Your task to perform on an android device: Check the weather Image 0: 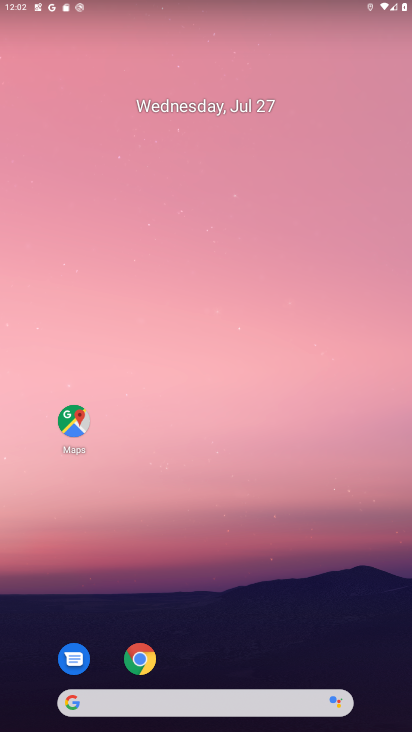
Step 0: drag from (228, 690) to (133, 16)
Your task to perform on an android device: Check the weather Image 1: 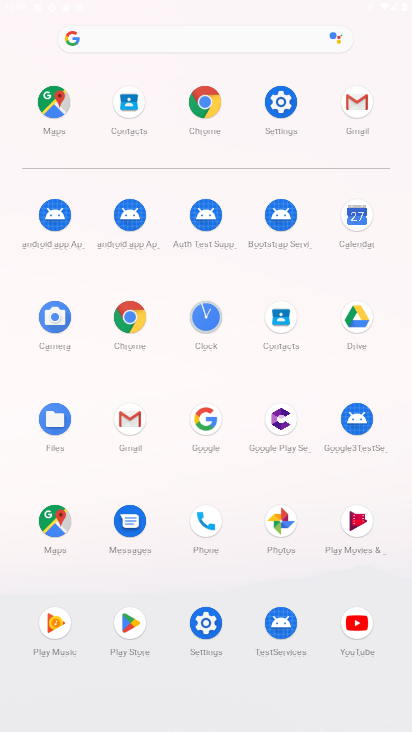
Step 1: click (128, 314)
Your task to perform on an android device: Check the weather Image 2: 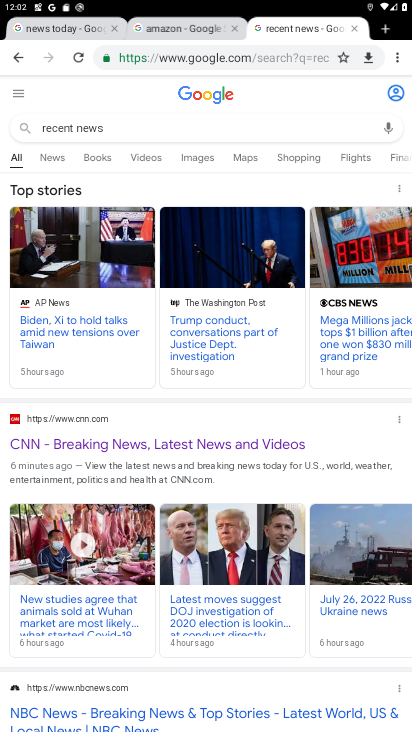
Step 2: click (183, 47)
Your task to perform on an android device: Check the weather Image 3: 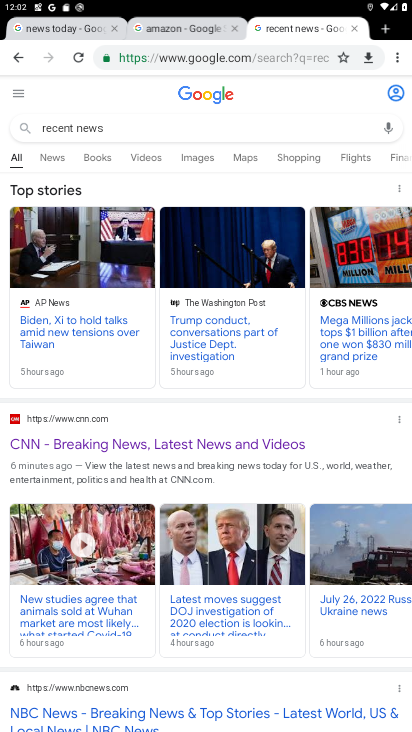
Step 3: click (183, 47)
Your task to perform on an android device: Check the weather Image 4: 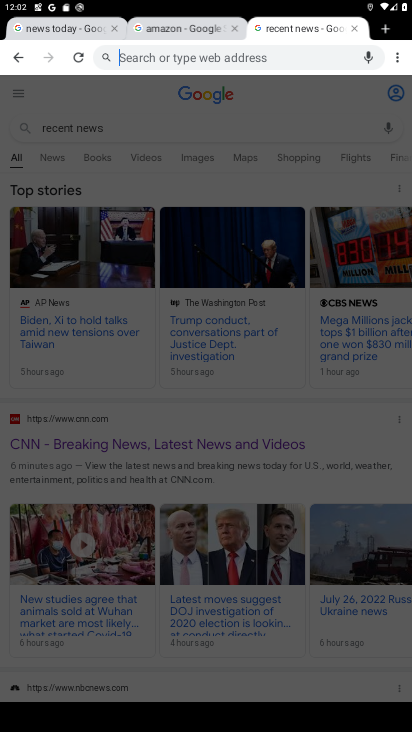
Step 4: type "check the weather"
Your task to perform on an android device: Check the weather Image 5: 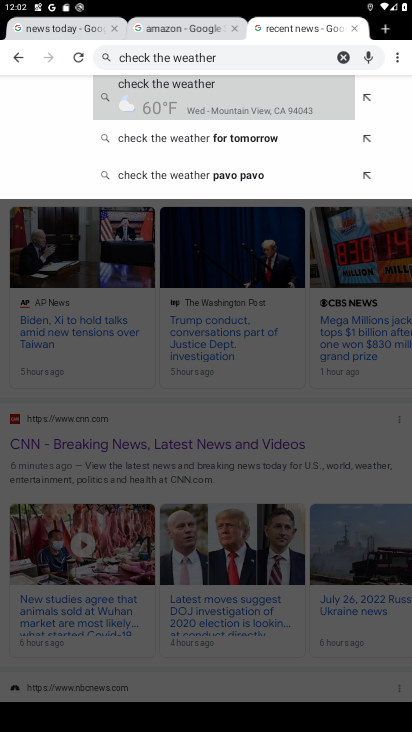
Step 5: click (252, 90)
Your task to perform on an android device: Check the weather Image 6: 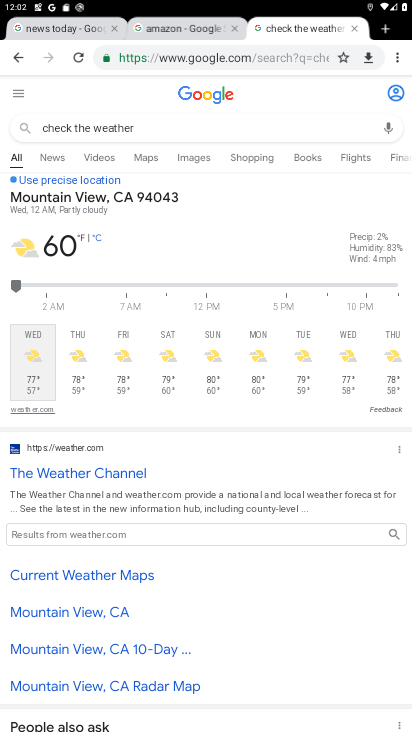
Step 6: task complete